Your task to perform on an android device: delete location history Image 0: 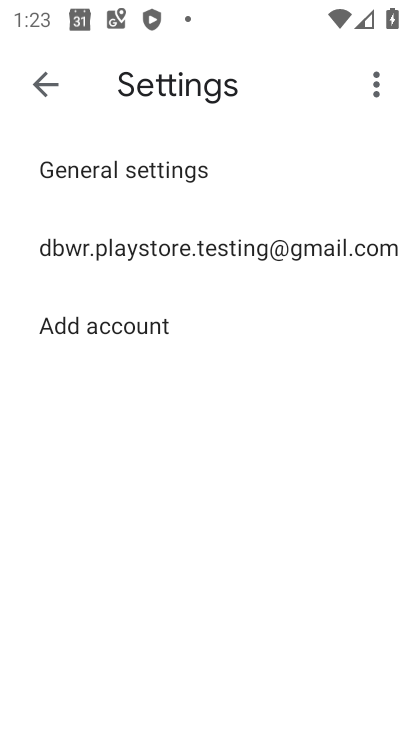
Step 0: press home button
Your task to perform on an android device: delete location history Image 1: 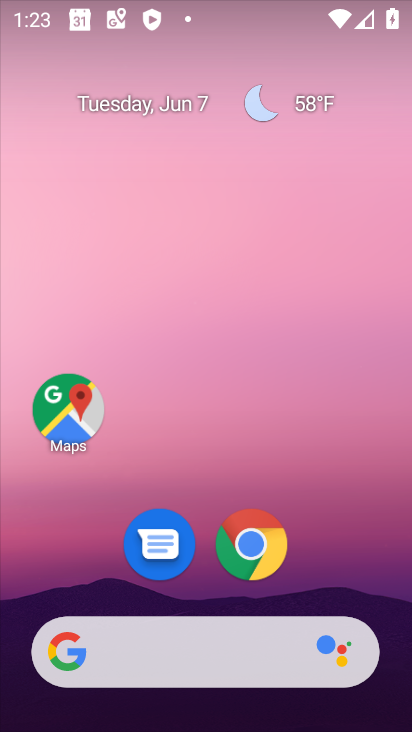
Step 1: drag from (165, 621) to (276, 270)
Your task to perform on an android device: delete location history Image 2: 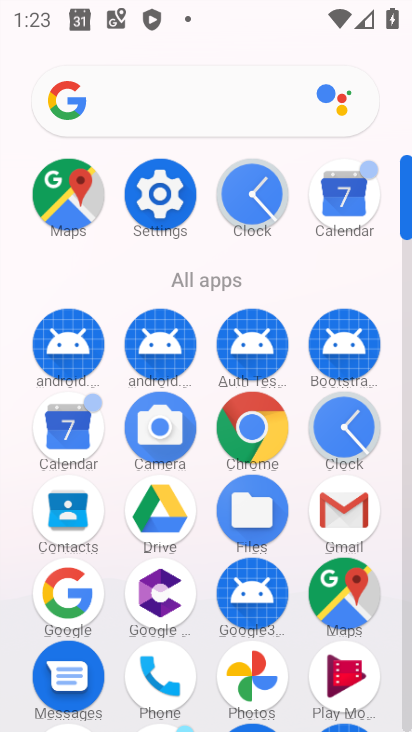
Step 2: click (340, 606)
Your task to perform on an android device: delete location history Image 3: 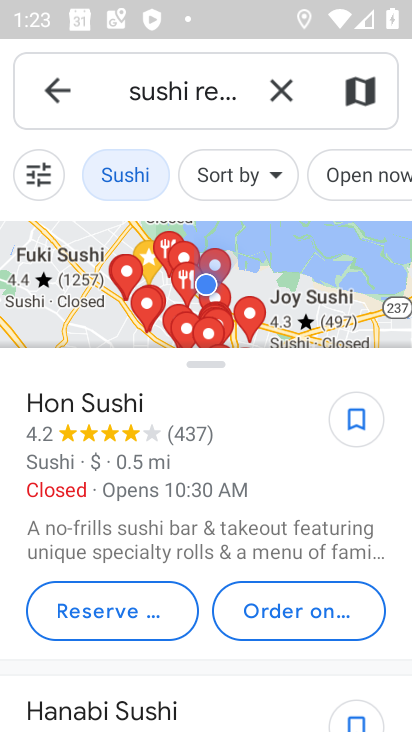
Step 3: click (57, 88)
Your task to perform on an android device: delete location history Image 4: 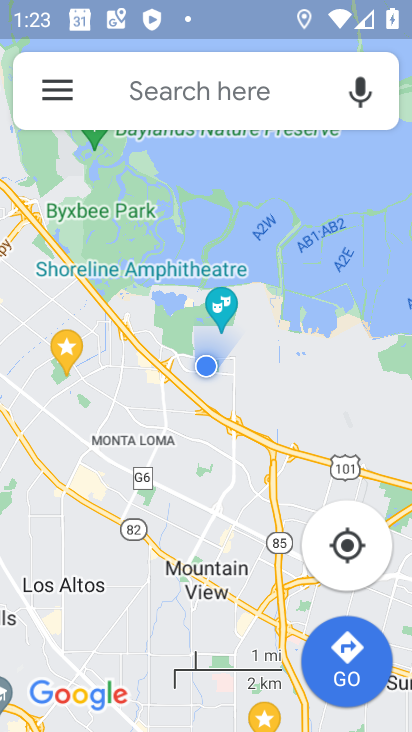
Step 4: click (47, 95)
Your task to perform on an android device: delete location history Image 5: 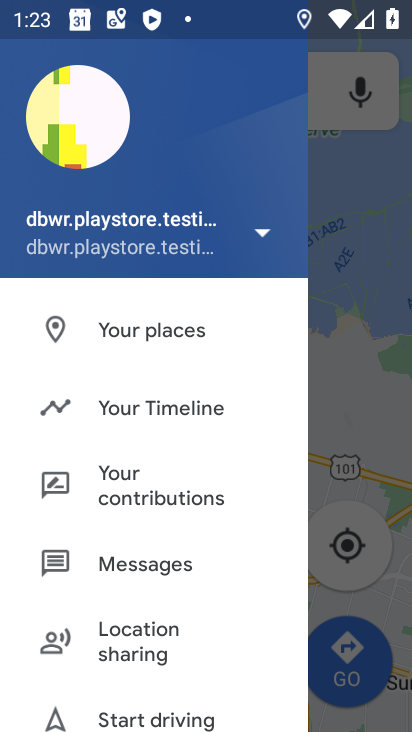
Step 5: drag from (134, 612) to (156, 39)
Your task to perform on an android device: delete location history Image 6: 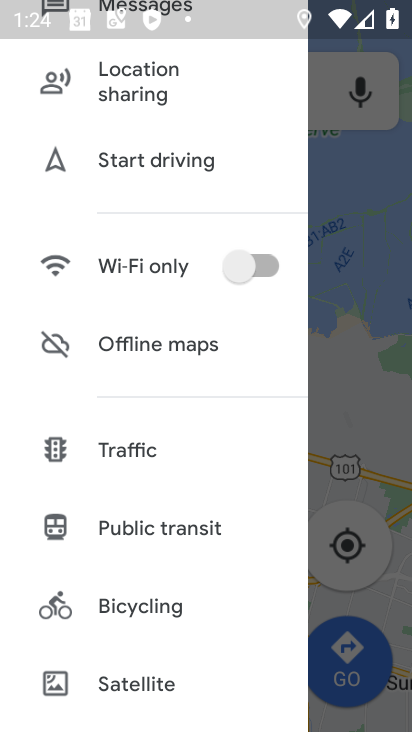
Step 6: drag from (205, 77) to (191, 502)
Your task to perform on an android device: delete location history Image 7: 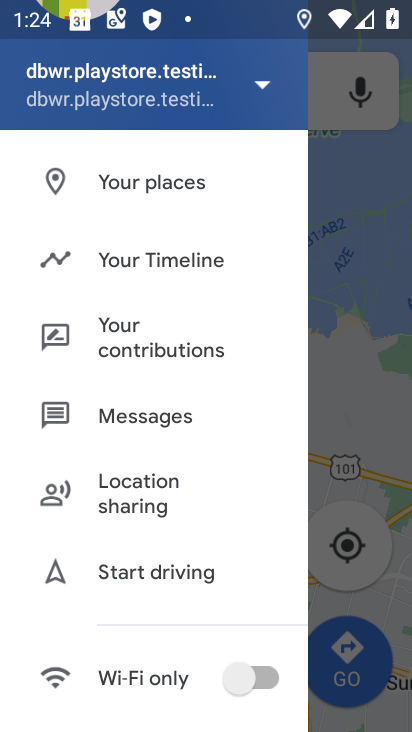
Step 7: click (135, 271)
Your task to perform on an android device: delete location history Image 8: 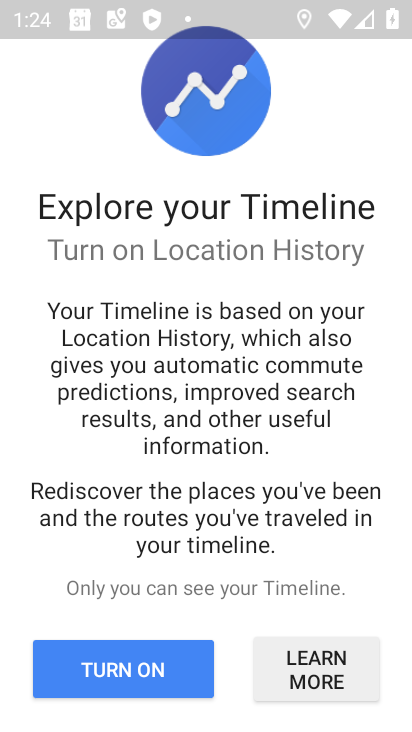
Step 8: click (175, 695)
Your task to perform on an android device: delete location history Image 9: 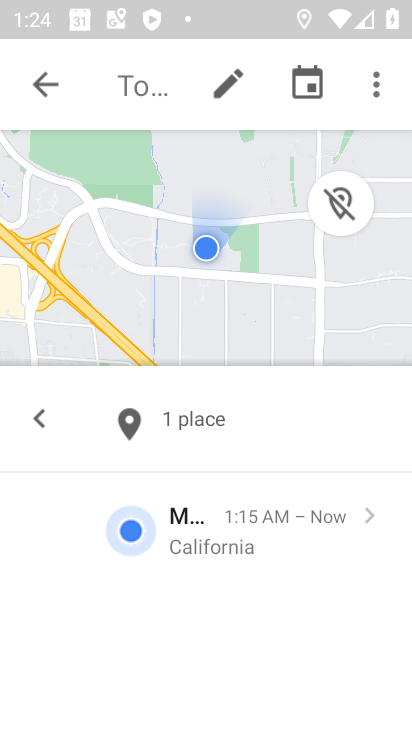
Step 9: click (368, 72)
Your task to perform on an android device: delete location history Image 10: 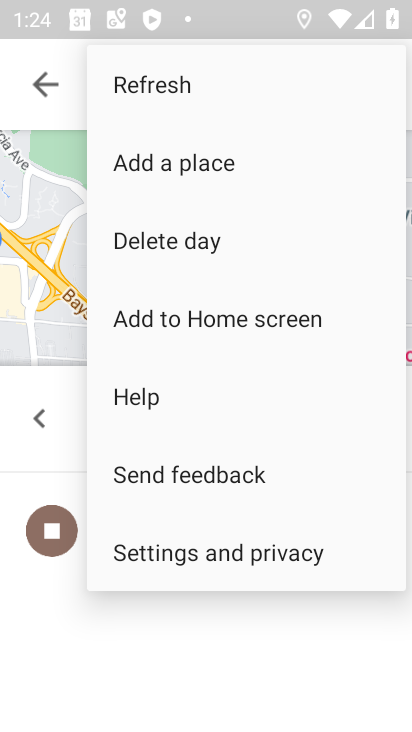
Step 10: click (224, 560)
Your task to perform on an android device: delete location history Image 11: 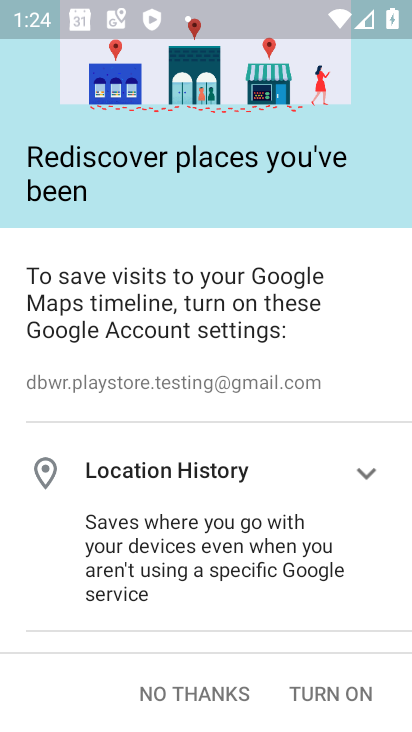
Step 11: click (318, 684)
Your task to perform on an android device: delete location history Image 12: 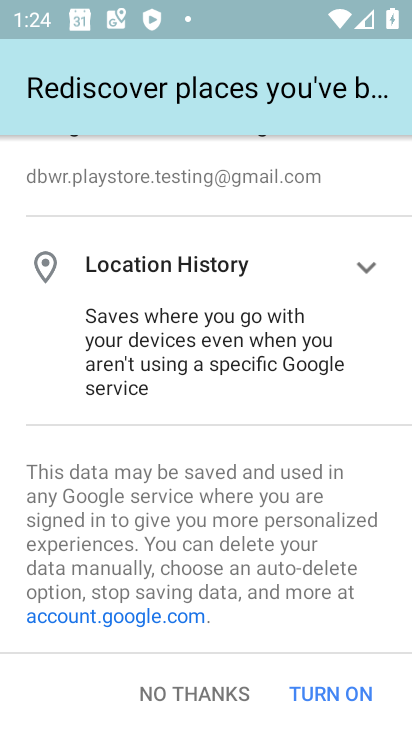
Step 12: click (307, 683)
Your task to perform on an android device: delete location history Image 13: 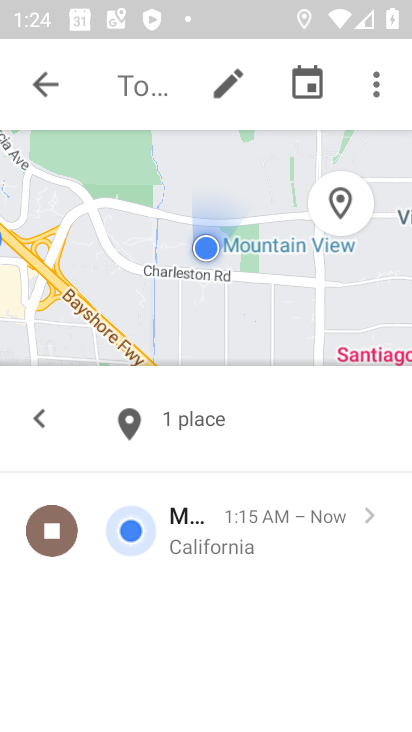
Step 13: click (370, 49)
Your task to perform on an android device: delete location history Image 14: 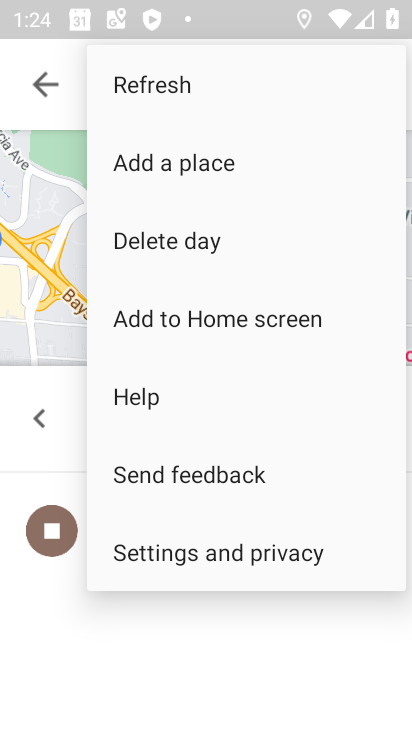
Step 14: click (266, 557)
Your task to perform on an android device: delete location history Image 15: 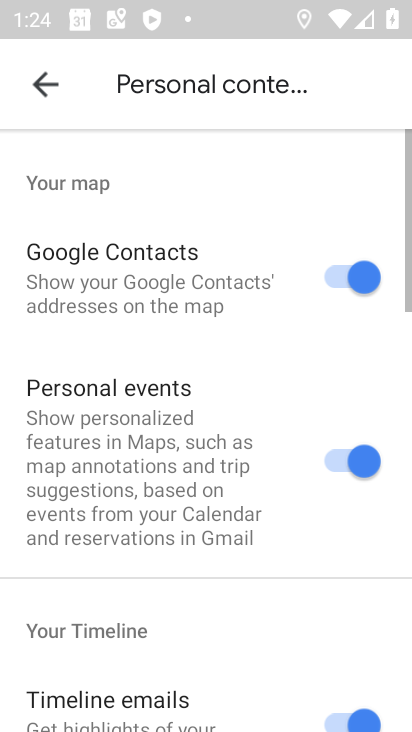
Step 15: drag from (177, 620) to (31, 31)
Your task to perform on an android device: delete location history Image 16: 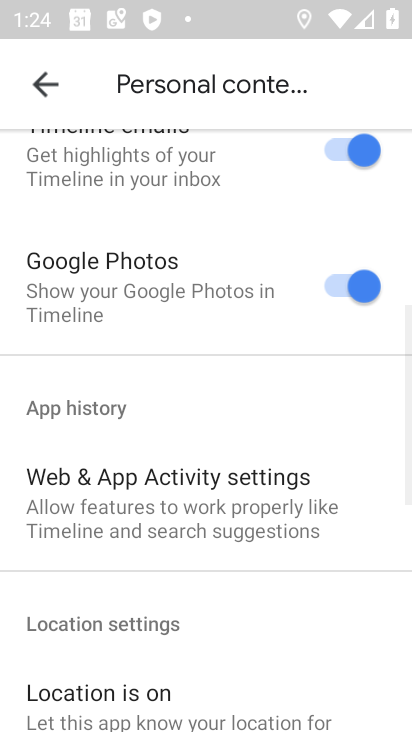
Step 16: drag from (167, 591) to (241, 79)
Your task to perform on an android device: delete location history Image 17: 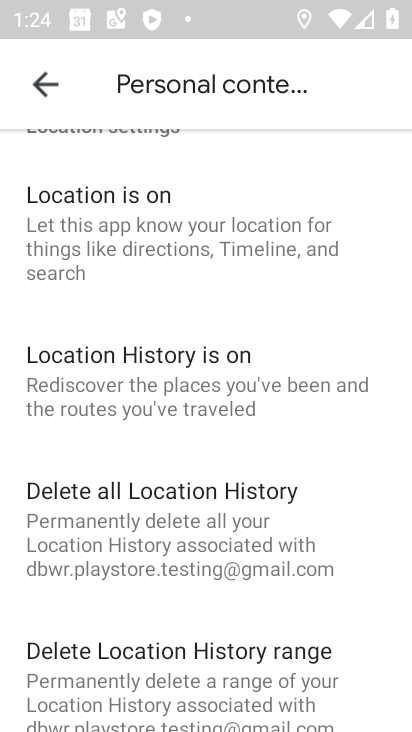
Step 17: click (209, 523)
Your task to perform on an android device: delete location history Image 18: 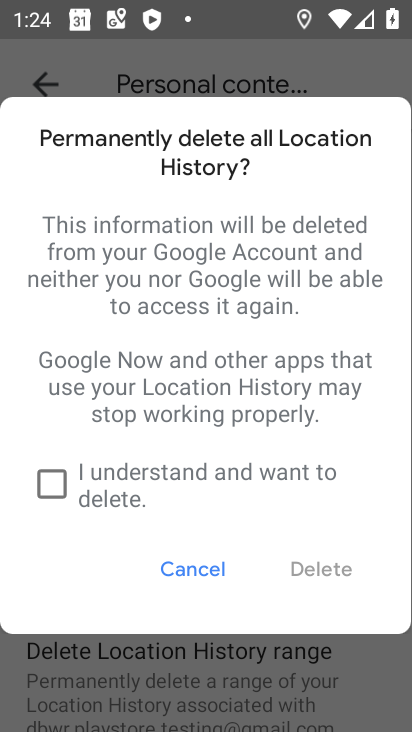
Step 18: click (59, 469)
Your task to perform on an android device: delete location history Image 19: 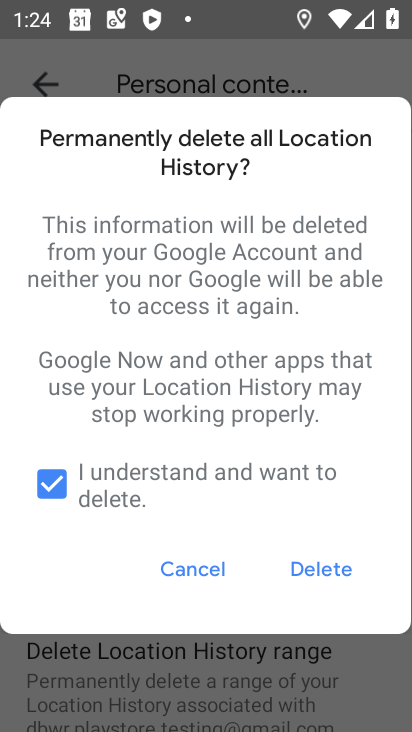
Step 19: click (329, 570)
Your task to perform on an android device: delete location history Image 20: 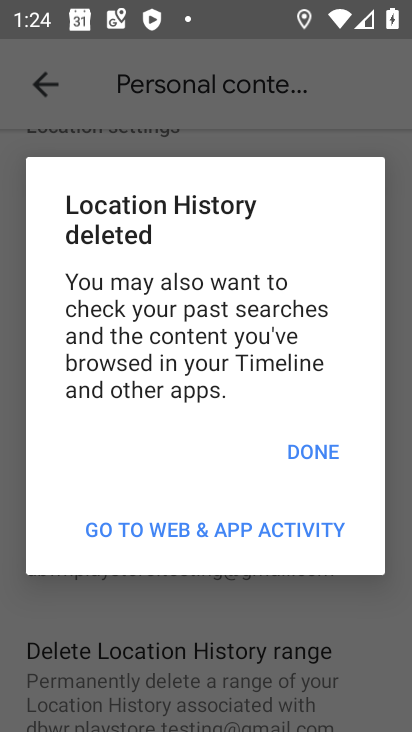
Step 20: click (290, 450)
Your task to perform on an android device: delete location history Image 21: 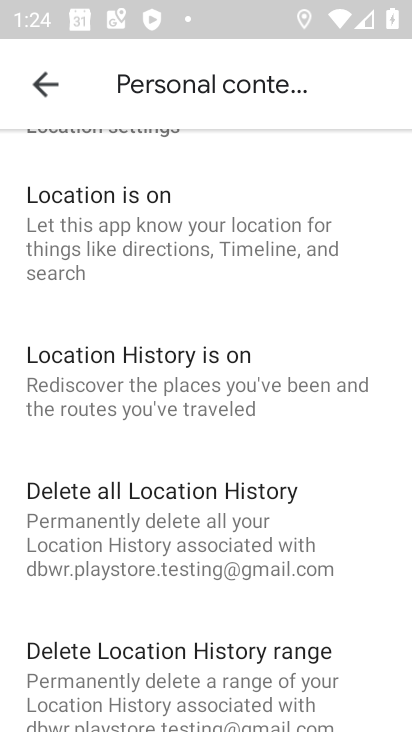
Step 21: task complete